Your task to perform on an android device: change notifications settings Image 0: 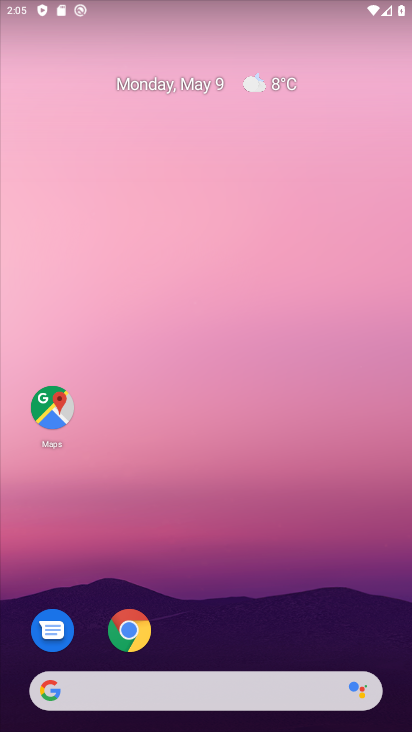
Step 0: drag from (243, 526) to (352, 23)
Your task to perform on an android device: change notifications settings Image 1: 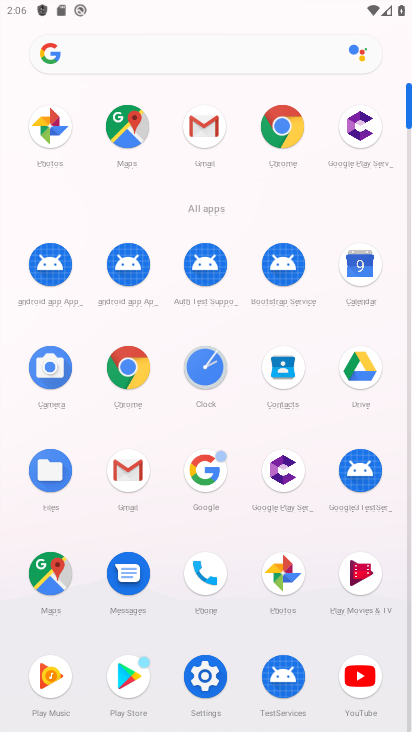
Step 1: click (222, 675)
Your task to perform on an android device: change notifications settings Image 2: 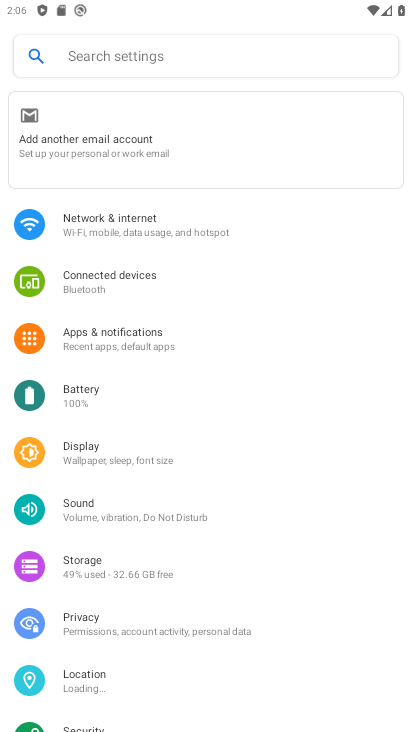
Step 2: click (128, 341)
Your task to perform on an android device: change notifications settings Image 3: 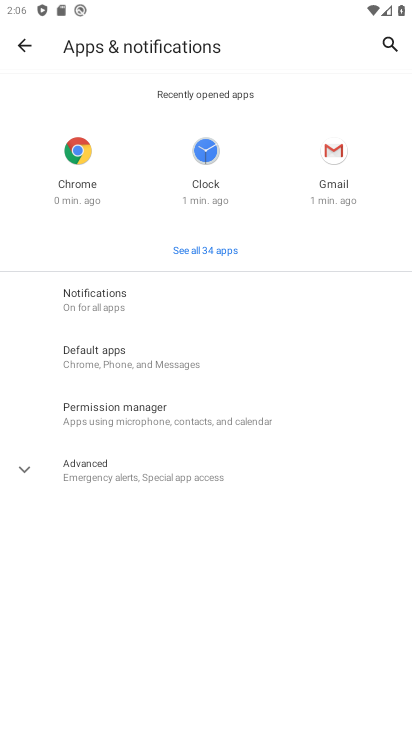
Step 3: click (114, 312)
Your task to perform on an android device: change notifications settings Image 4: 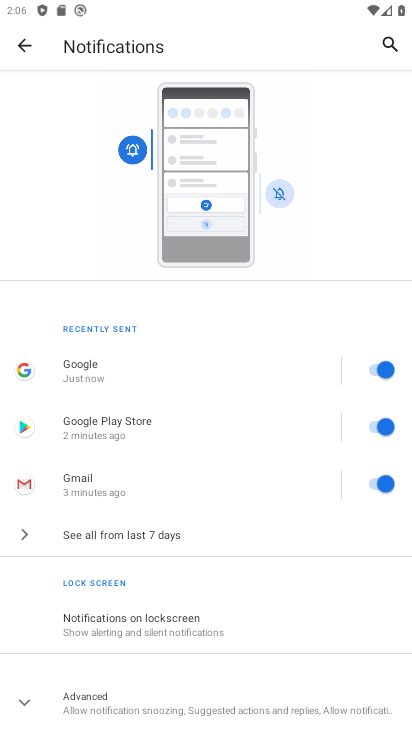
Step 4: drag from (165, 542) to (213, 369)
Your task to perform on an android device: change notifications settings Image 5: 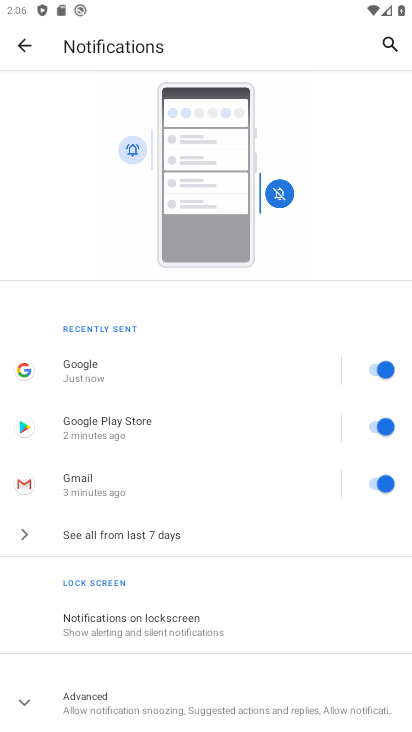
Step 5: click (379, 369)
Your task to perform on an android device: change notifications settings Image 6: 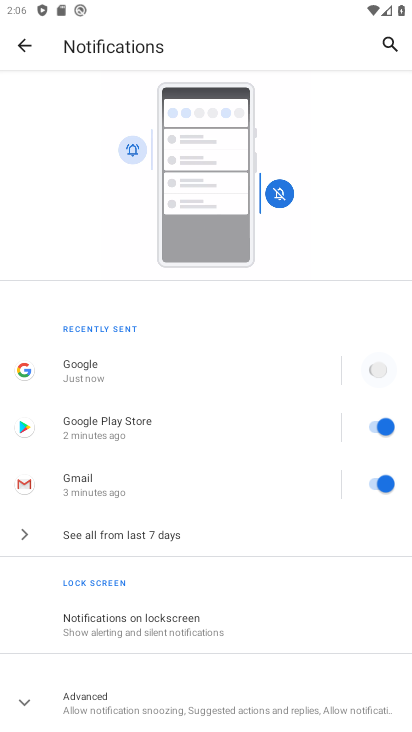
Step 6: click (377, 430)
Your task to perform on an android device: change notifications settings Image 7: 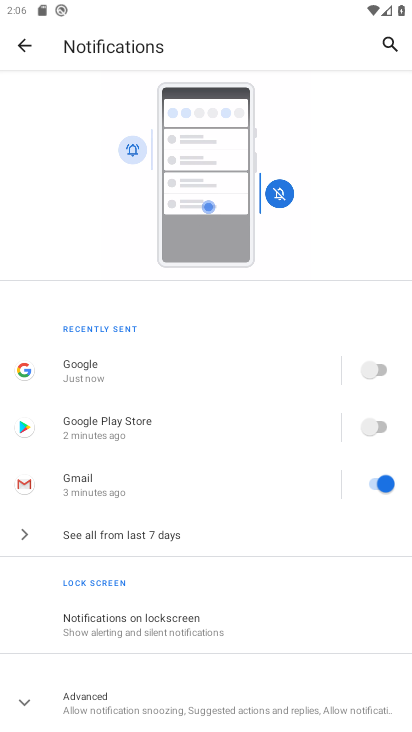
Step 7: click (377, 490)
Your task to perform on an android device: change notifications settings Image 8: 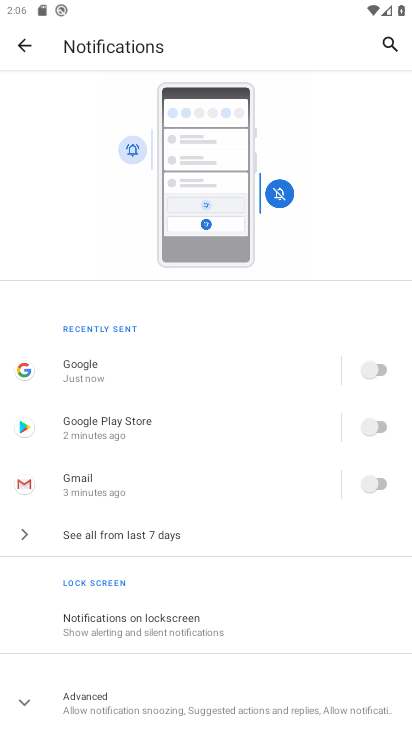
Step 8: click (155, 626)
Your task to perform on an android device: change notifications settings Image 9: 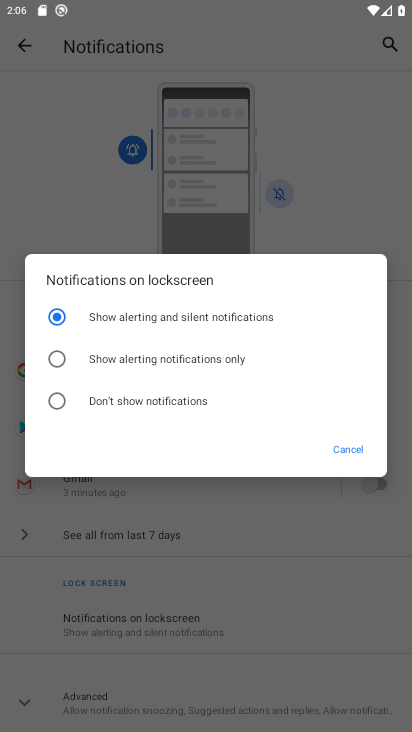
Step 9: click (77, 406)
Your task to perform on an android device: change notifications settings Image 10: 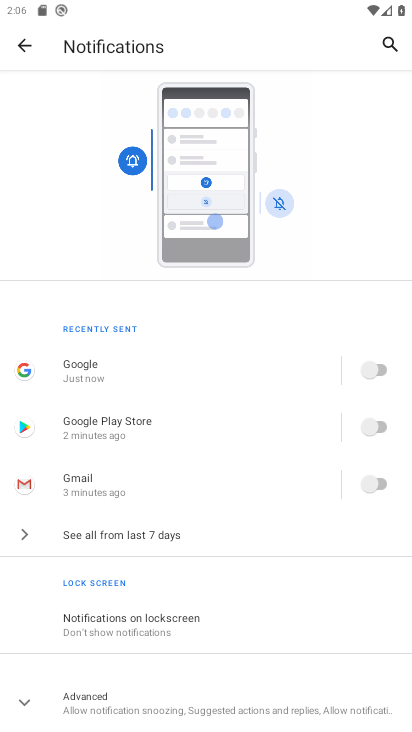
Step 10: task complete